Your task to perform on an android device: See recent photos Image 0: 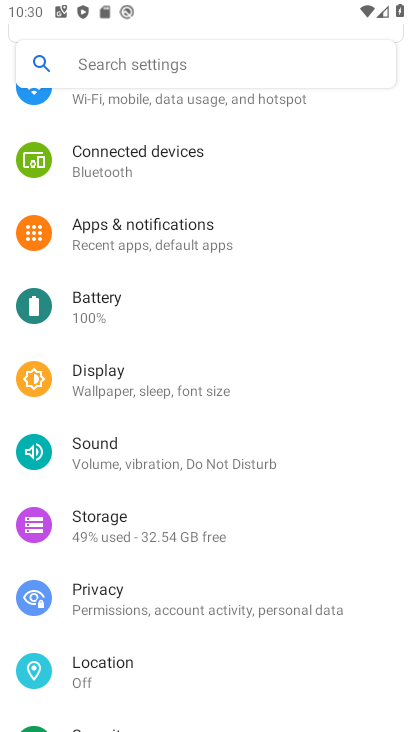
Step 0: press home button
Your task to perform on an android device: See recent photos Image 1: 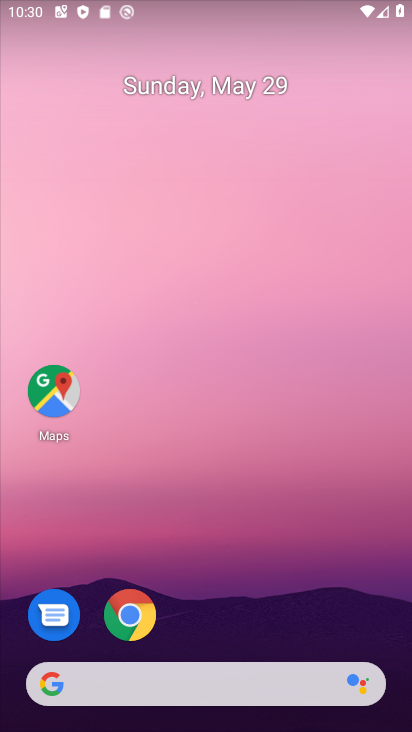
Step 1: drag from (199, 642) to (156, 35)
Your task to perform on an android device: See recent photos Image 2: 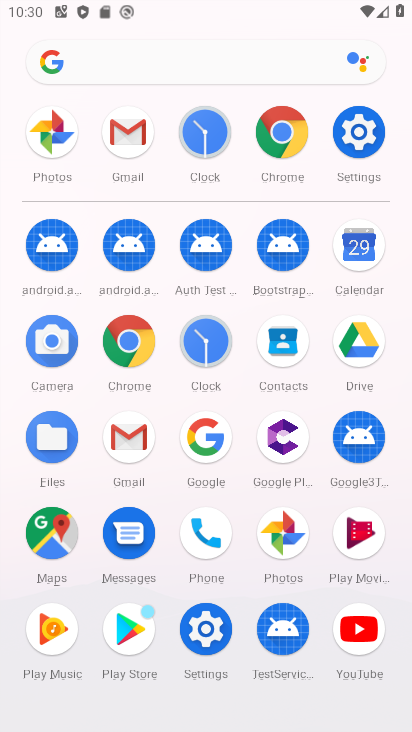
Step 2: click (274, 538)
Your task to perform on an android device: See recent photos Image 3: 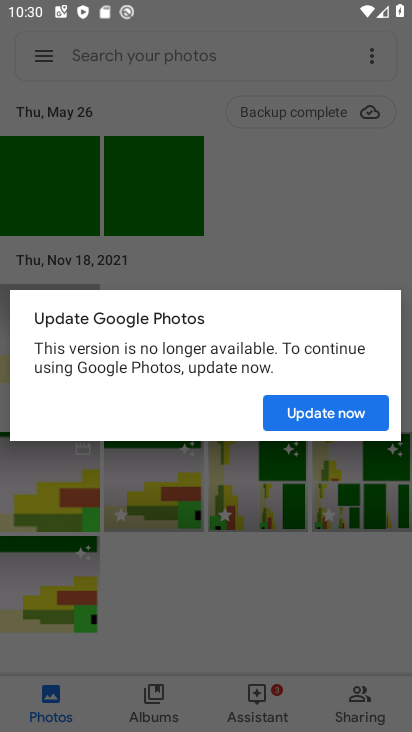
Step 3: click (322, 426)
Your task to perform on an android device: See recent photos Image 4: 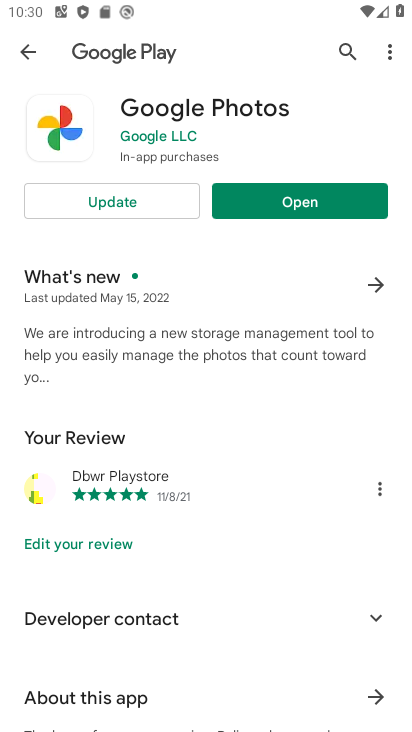
Step 4: click (275, 190)
Your task to perform on an android device: See recent photos Image 5: 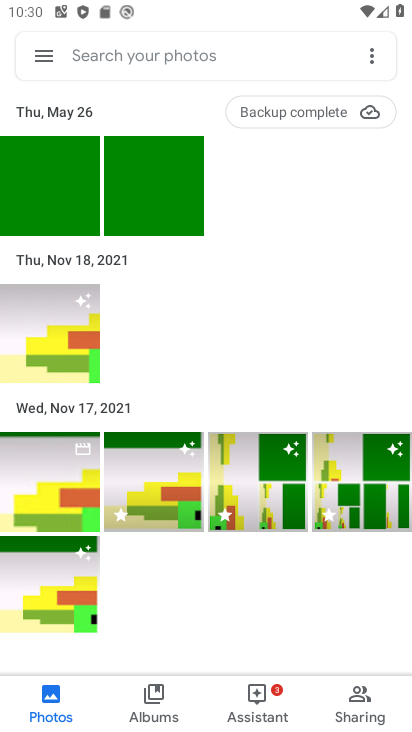
Step 5: task complete